Your task to perform on an android device: Find coffee shops on Maps Image 0: 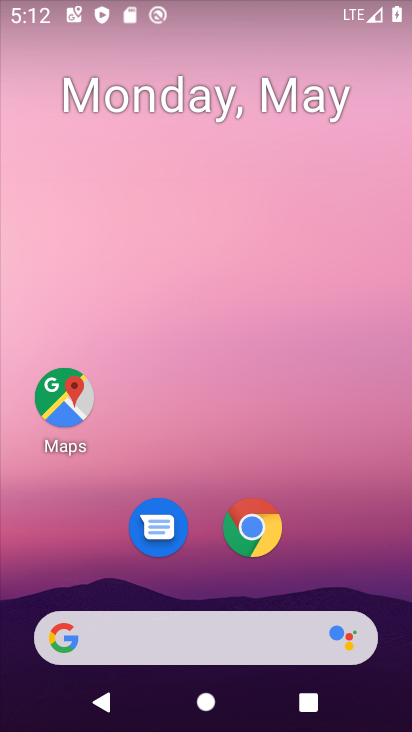
Step 0: click (48, 386)
Your task to perform on an android device: Find coffee shops on Maps Image 1: 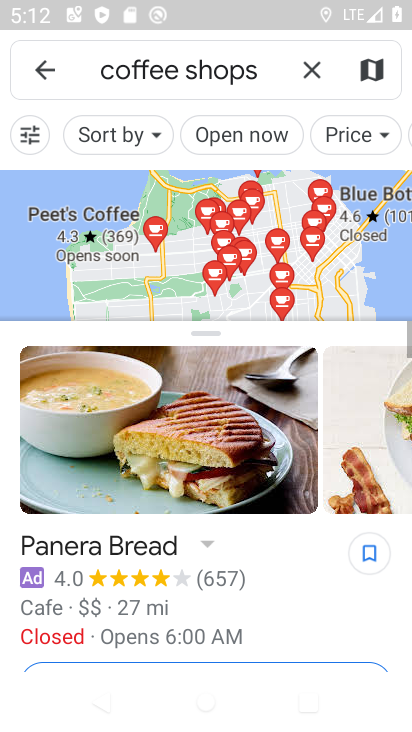
Step 1: click (314, 69)
Your task to perform on an android device: Find coffee shops on Maps Image 2: 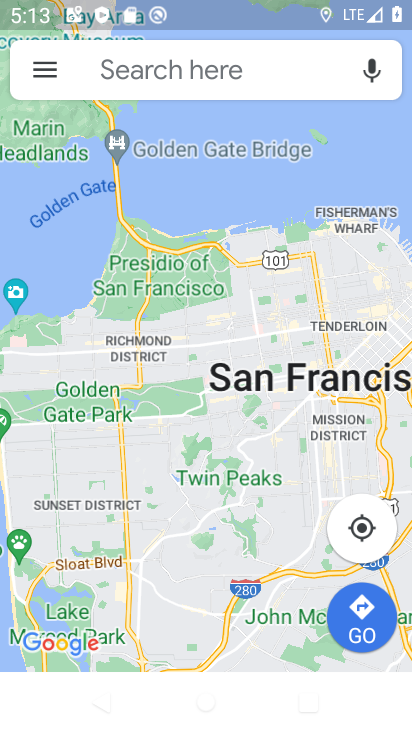
Step 2: click (142, 77)
Your task to perform on an android device: Find coffee shops on Maps Image 3: 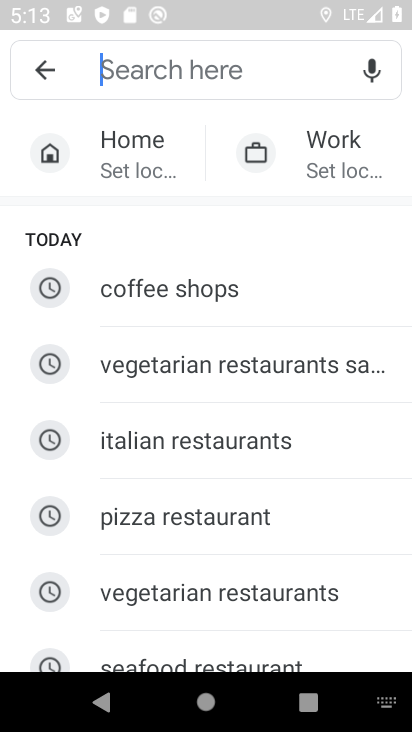
Step 3: type "coffee shops "
Your task to perform on an android device: Find coffee shops on Maps Image 4: 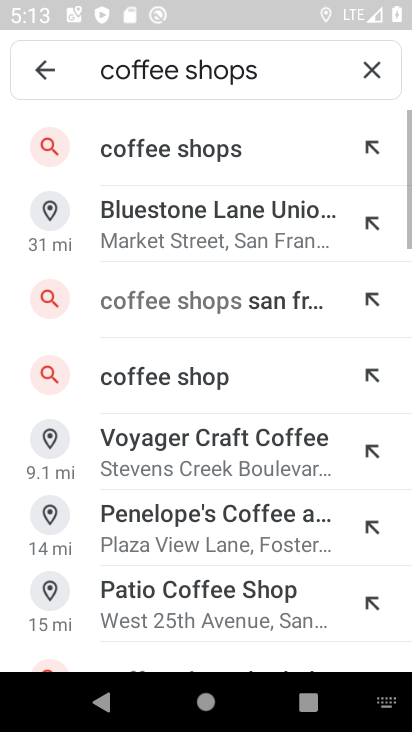
Step 4: click (211, 150)
Your task to perform on an android device: Find coffee shops on Maps Image 5: 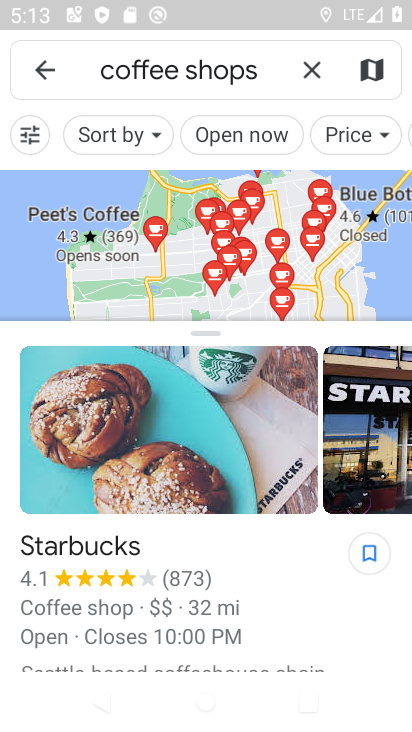
Step 5: task complete